Your task to perform on an android device: Search for pizza restaurants on Maps Image 0: 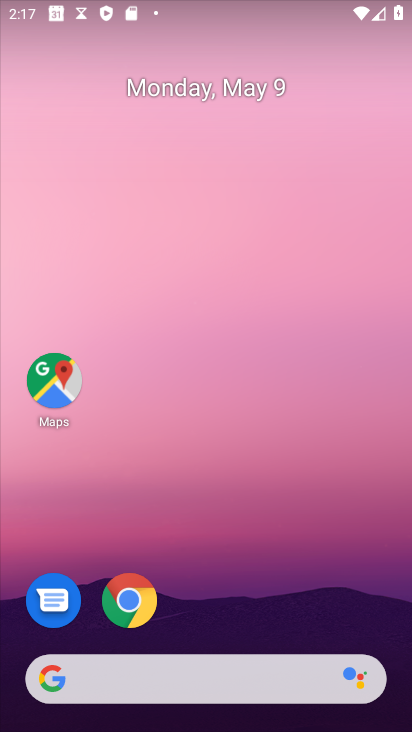
Step 0: drag from (250, 598) to (144, 4)
Your task to perform on an android device: Search for pizza restaurants on Maps Image 1: 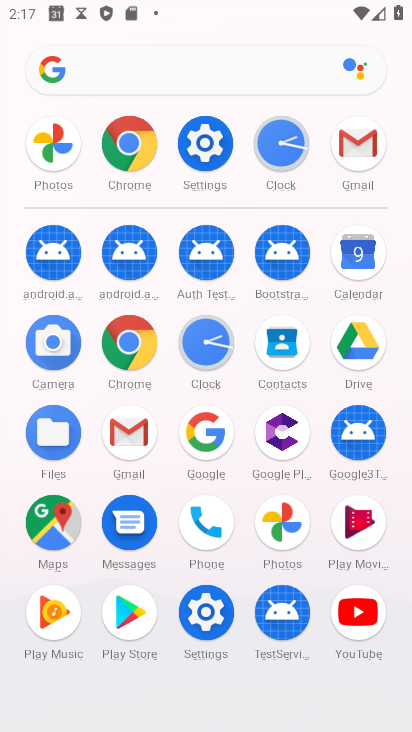
Step 1: drag from (10, 539) to (13, 226)
Your task to perform on an android device: Search for pizza restaurants on Maps Image 2: 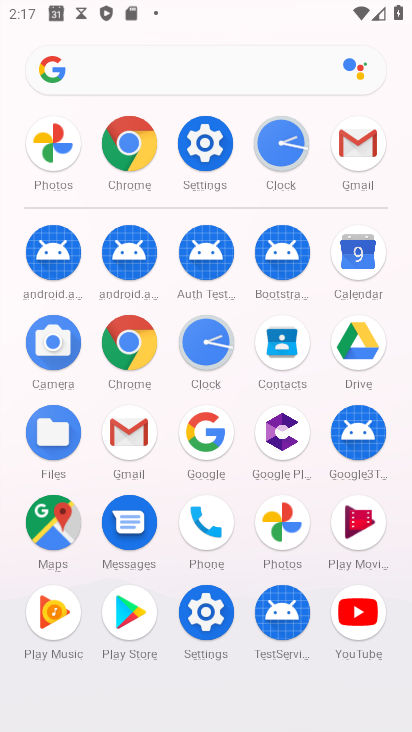
Step 2: click (51, 520)
Your task to perform on an android device: Search for pizza restaurants on Maps Image 3: 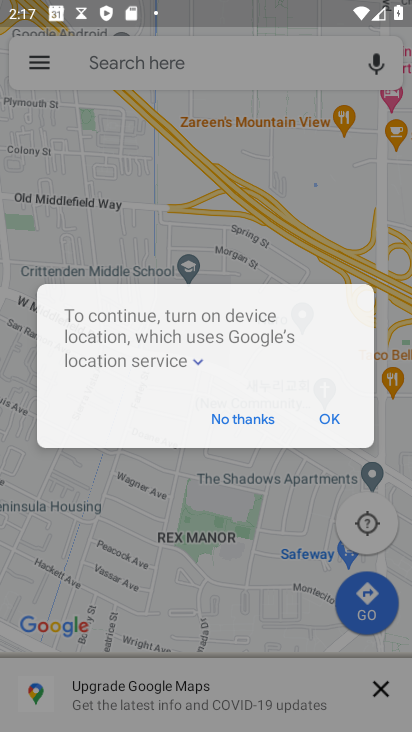
Step 3: click (188, 54)
Your task to perform on an android device: Search for pizza restaurants on Maps Image 4: 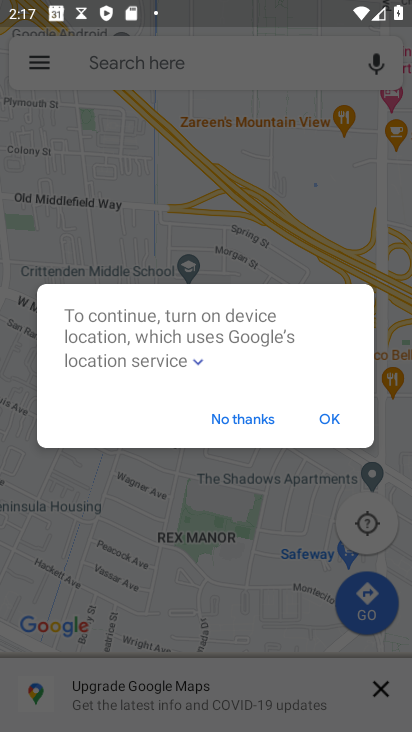
Step 4: click (330, 413)
Your task to perform on an android device: Search for pizza restaurants on Maps Image 5: 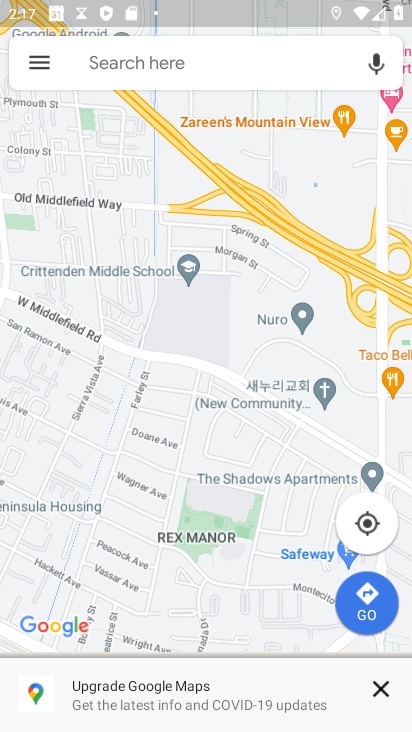
Step 5: click (203, 71)
Your task to perform on an android device: Search for pizza restaurants on Maps Image 6: 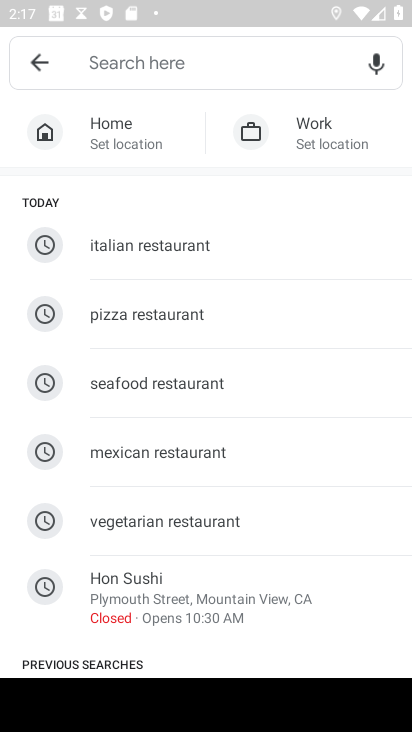
Step 6: drag from (211, 521) to (222, 242)
Your task to perform on an android device: Search for pizza restaurants on Maps Image 7: 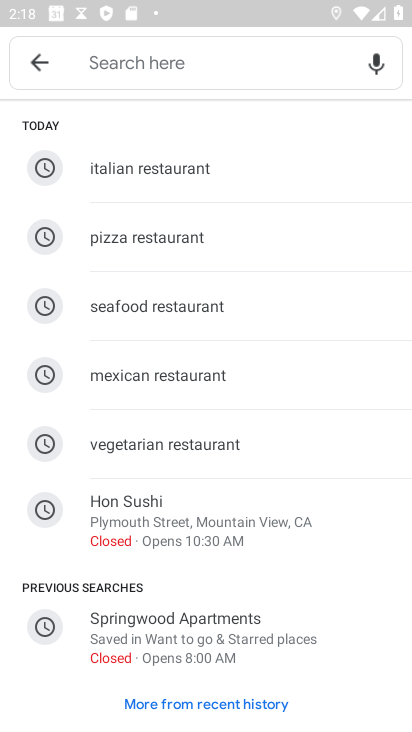
Step 7: click (176, 218)
Your task to perform on an android device: Search for pizza restaurants on Maps Image 8: 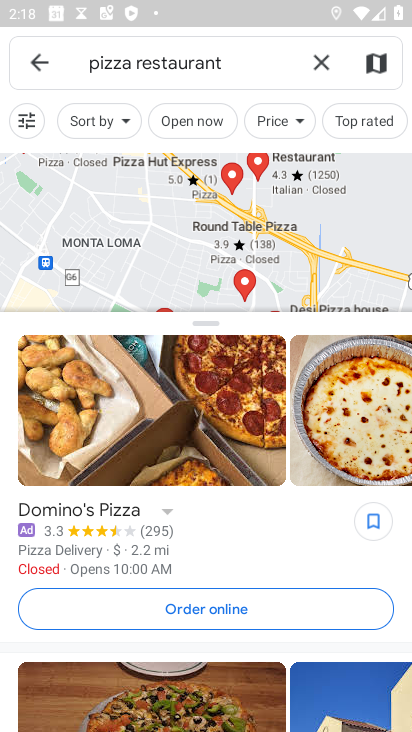
Step 8: task complete